Your task to perform on an android device: allow notifications from all sites in the chrome app Image 0: 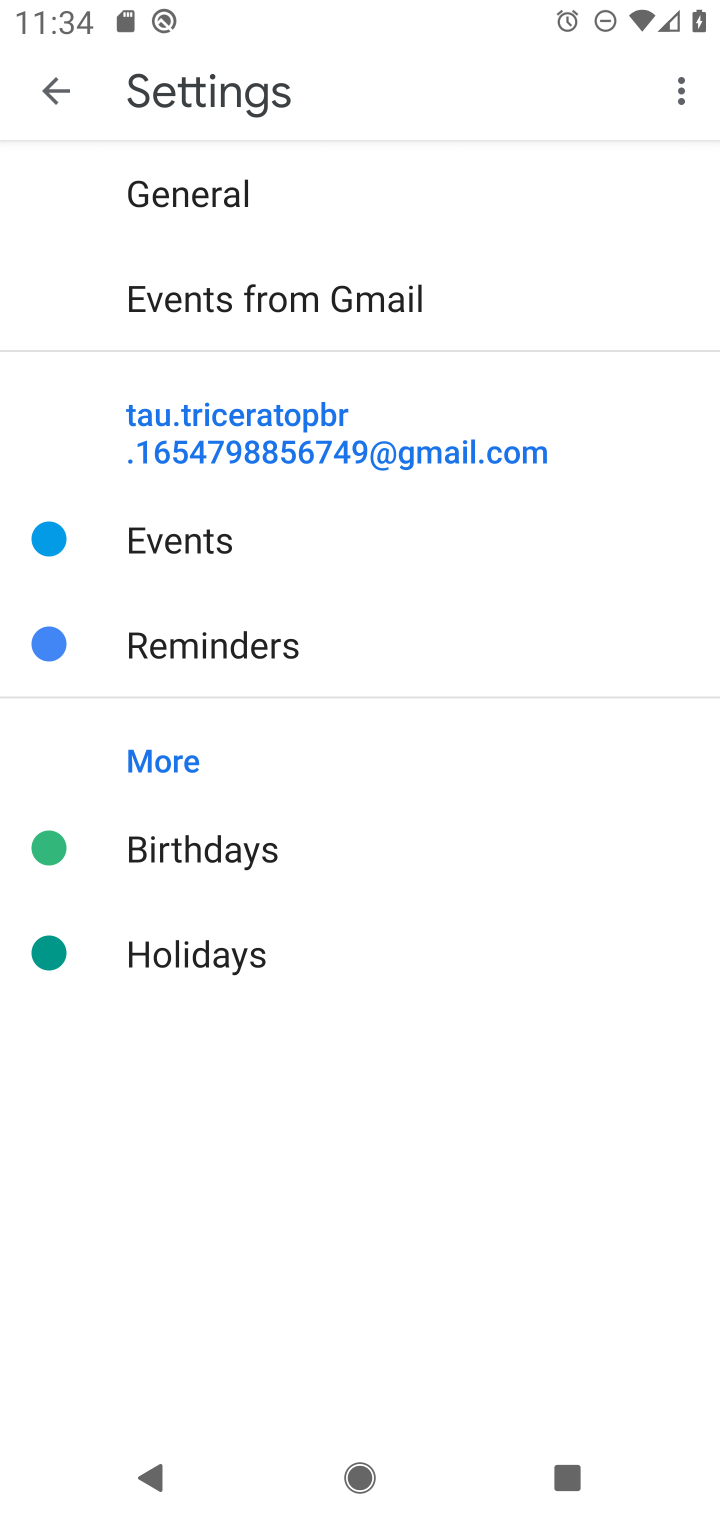
Step 0: press home button
Your task to perform on an android device: allow notifications from all sites in the chrome app Image 1: 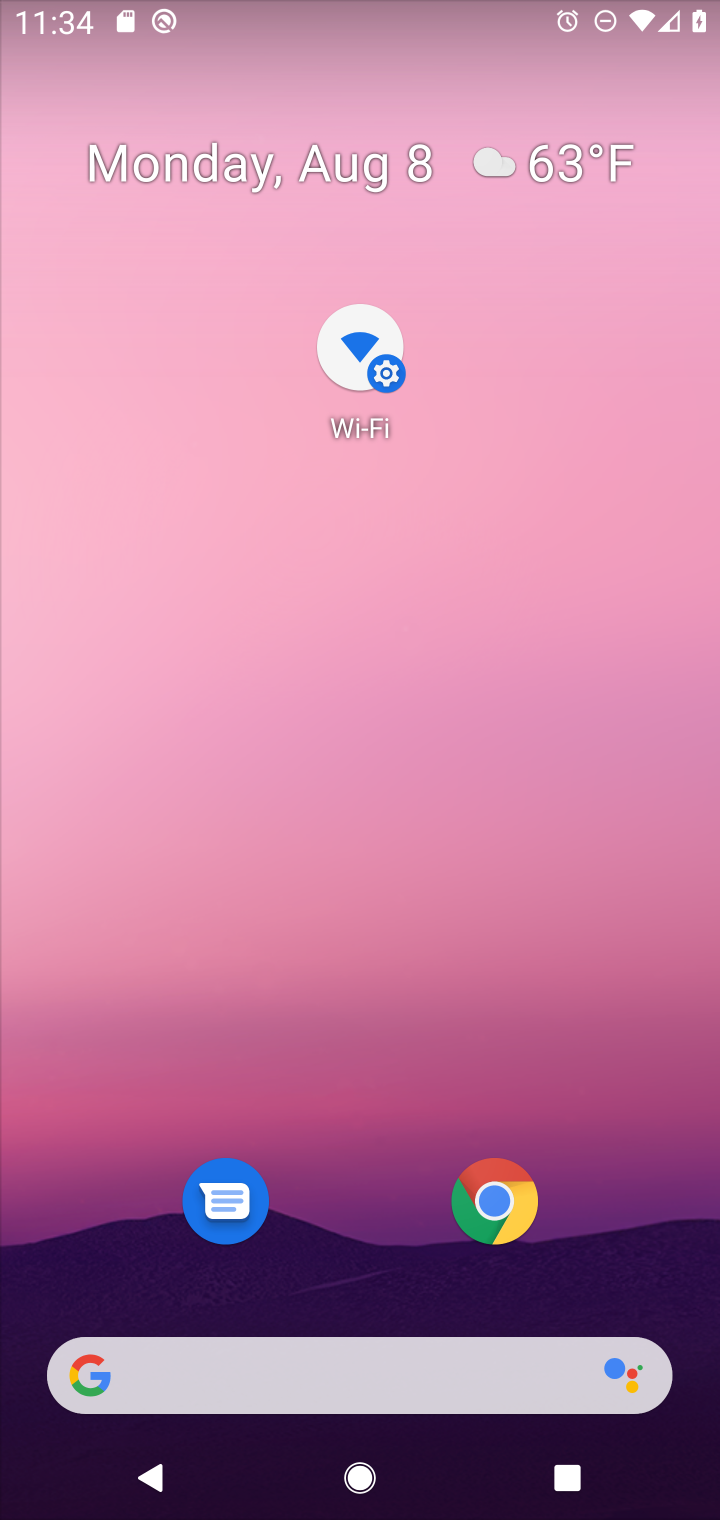
Step 1: drag from (631, 1264) to (718, 1304)
Your task to perform on an android device: allow notifications from all sites in the chrome app Image 2: 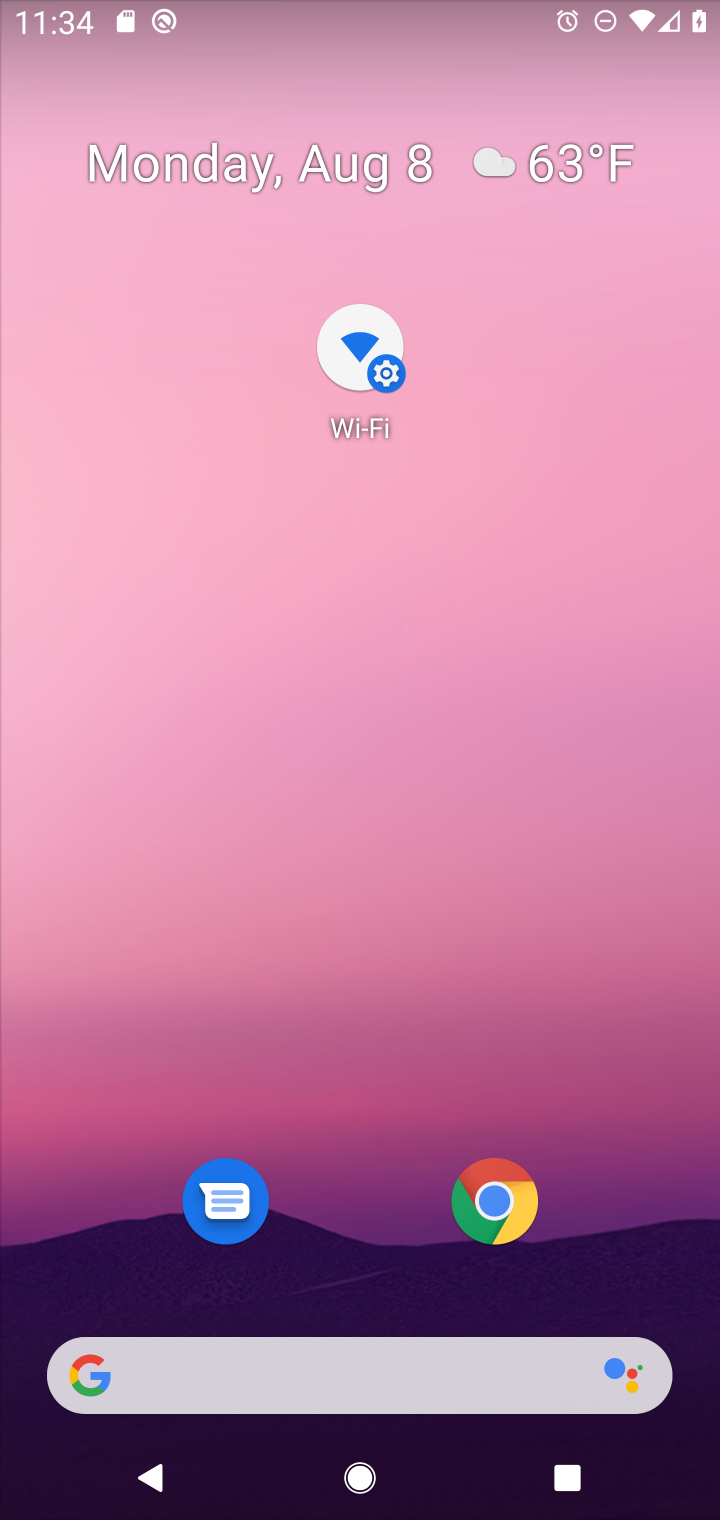
Step 2: drag from (346, 1248) to (391, 310)
Your task to perform on an android device: allow notifications from all sites in the chrome app Image 3: 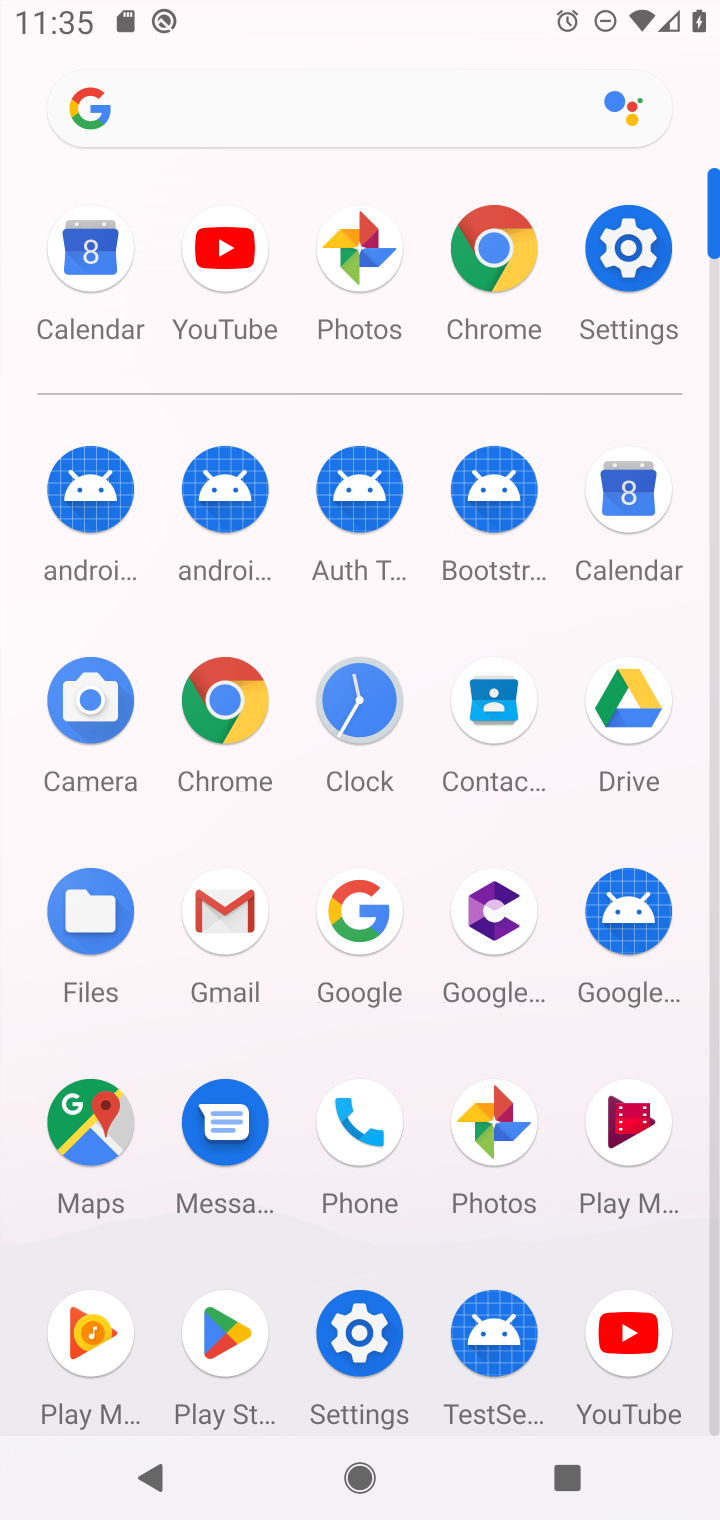
Step 3: click (216, 704)
Your task to perform on an android device: allow notifications from all sites in the chrome app Image 4: 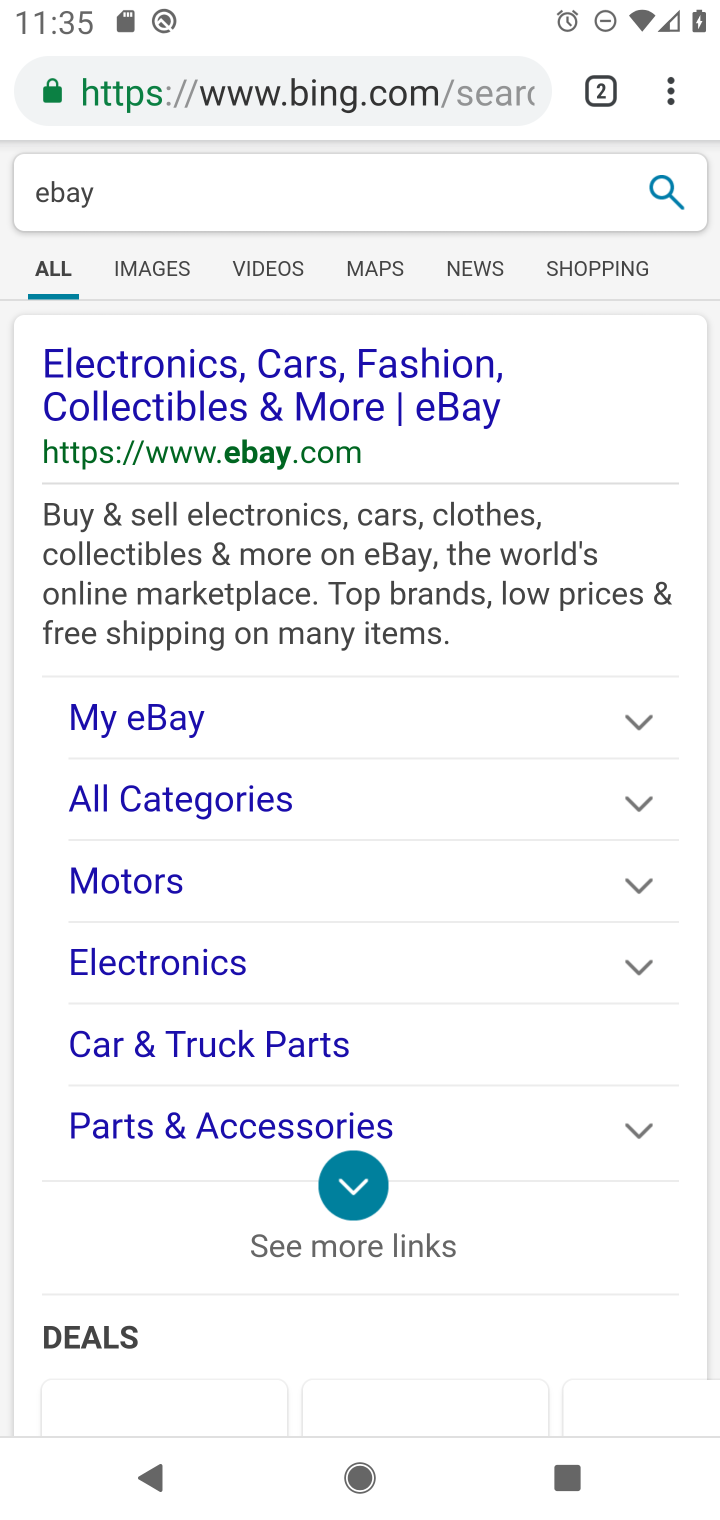
Step 4: click (670, 99)
Your task to perform on an android device: allow notifications from all sites in the chrome app Image 5: 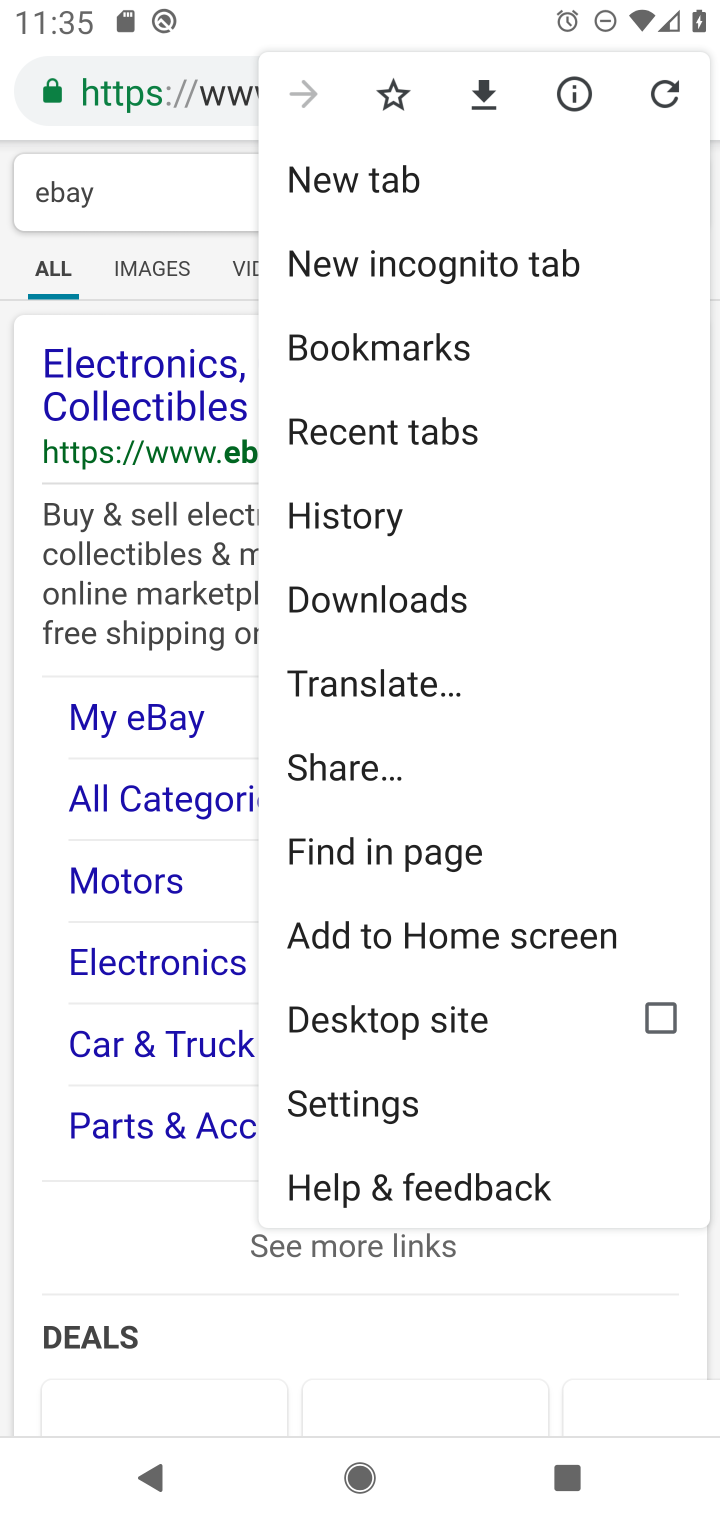
Step 5: click (395, 1111)
Your task to perform on an android device: allow notifications from all sites in the chrome app Image 6: 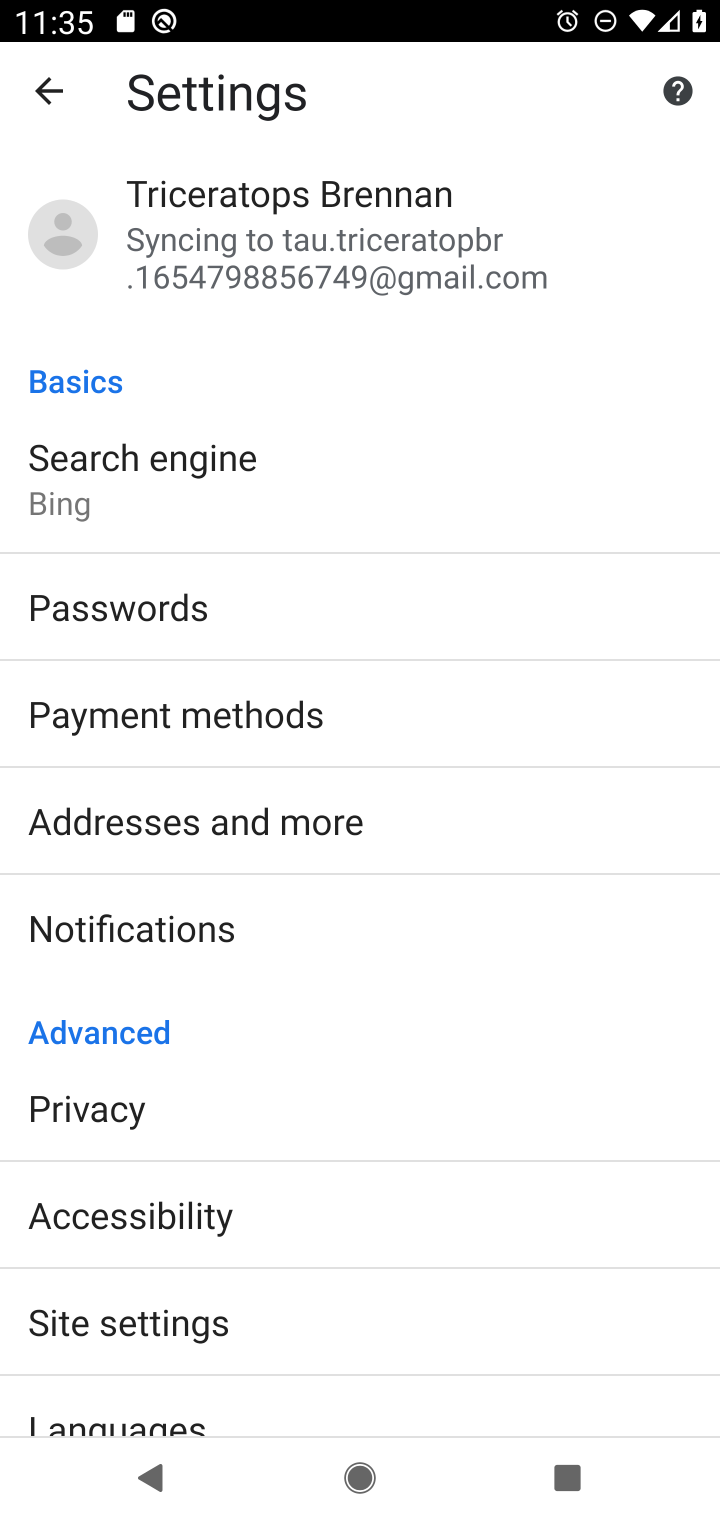
Step 6: drag from (534, 1071) to (520, 629)
Your task to perform on an android device: allow notifications from all sites in the chrome app Image 7: 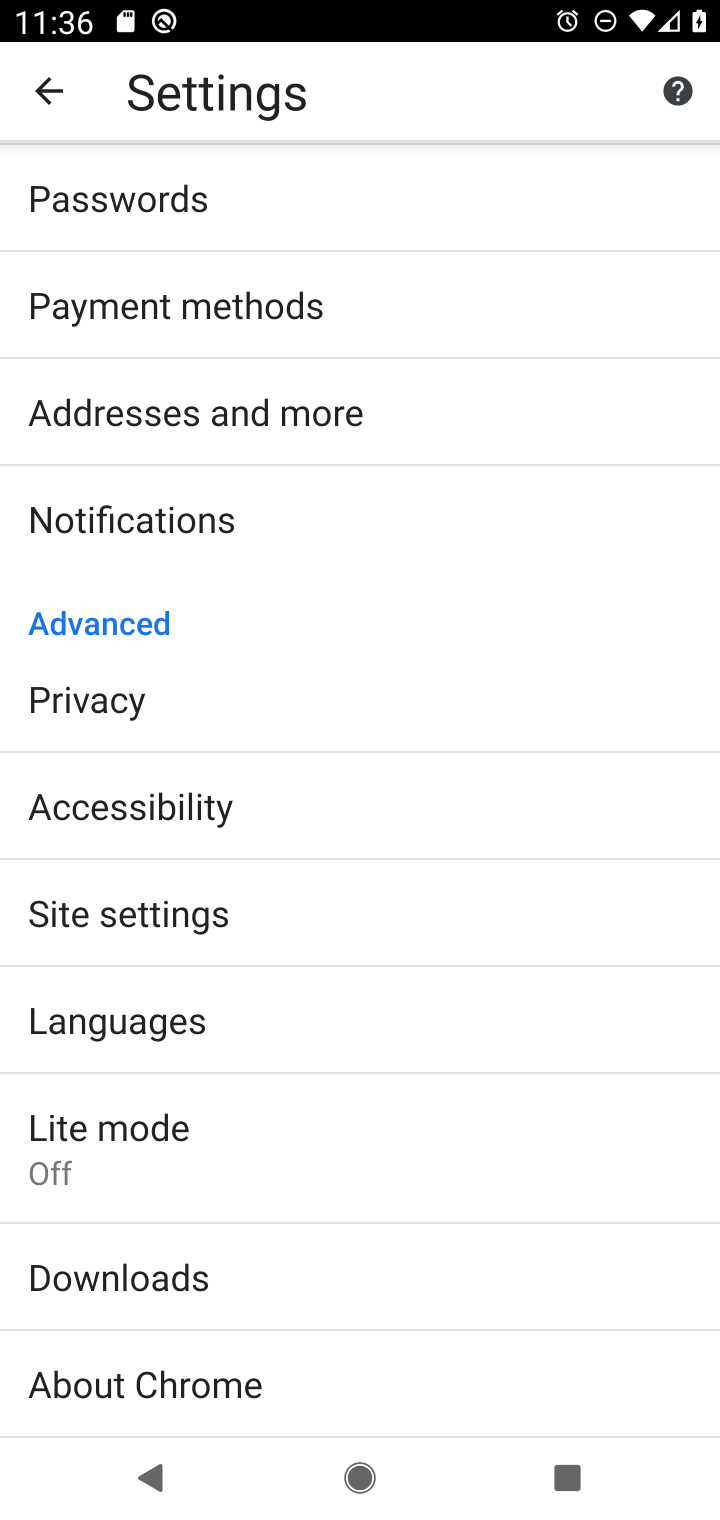
Step 7: drag from (521, 1123) to (564, 610)
Your task to perform on an android device: allow notifications from all sites in the chrome app Image 8: 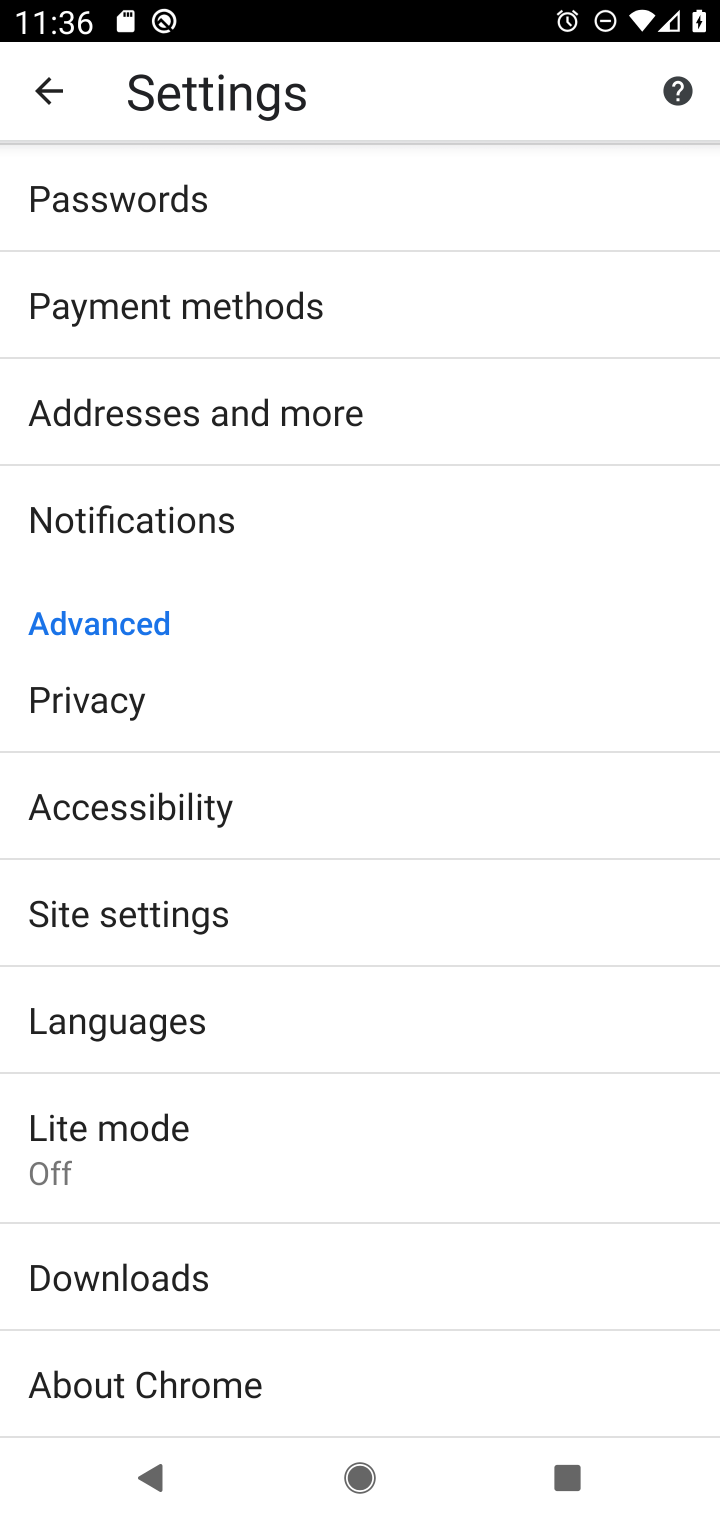
Step 8: click (413, 921)
Your task to perform on an android device: allow notifications from all sites in the chrome app Image 9: 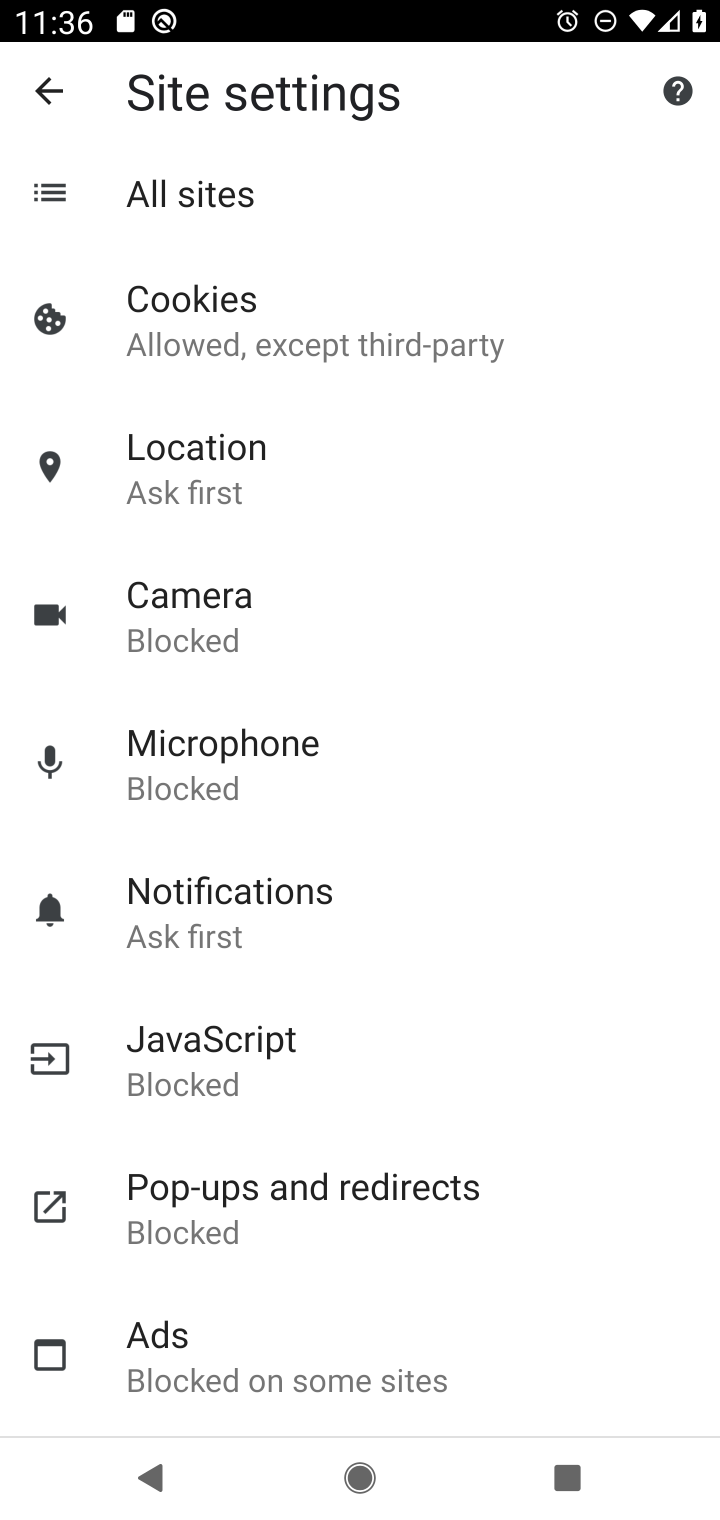
Step 9: click (287, 880)
Your task to perform on an android device: allow notifications from all sites in the chrome app Image 10: 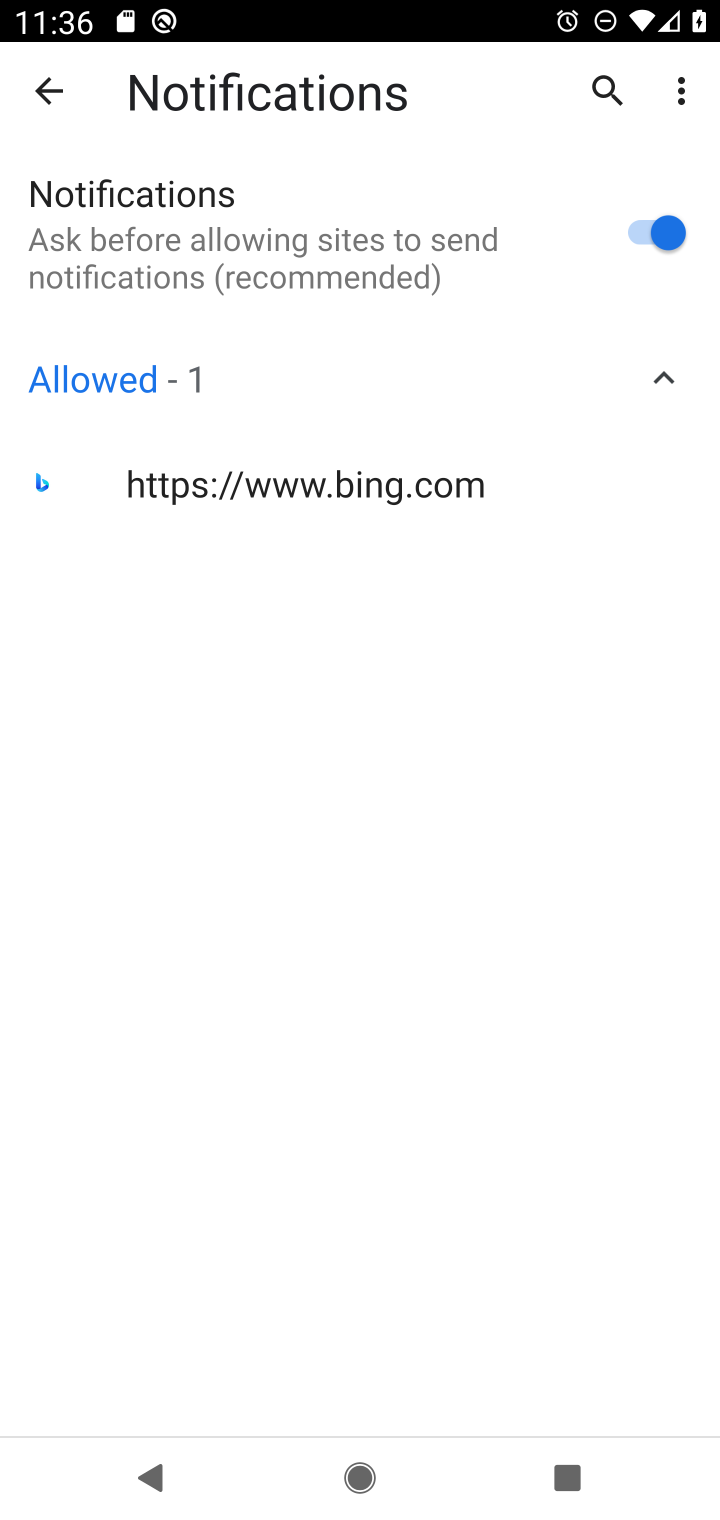
Step 10: task complete